Your task to perform on an android device: toggle location history Image 0: 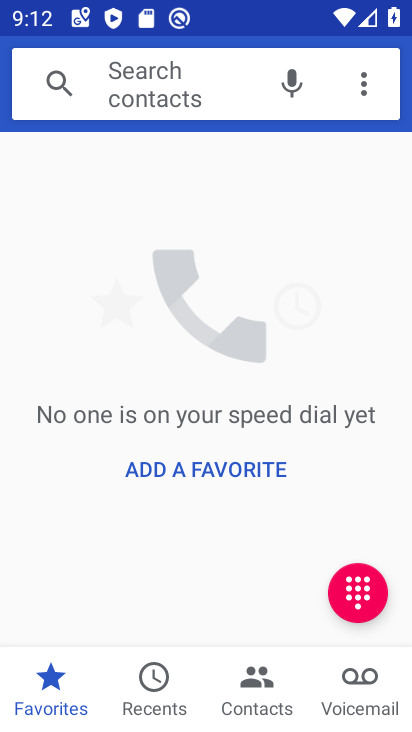
Step 0: press back button
Your task to perform on an android device: toggle location history Image 1: 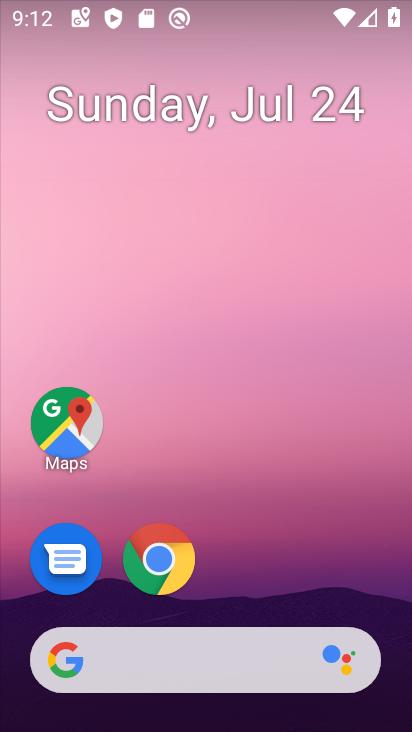
Step 1: drag from (265, 632) to (323, 85)
Your task to perform on an android device: toggle location history Image 2: 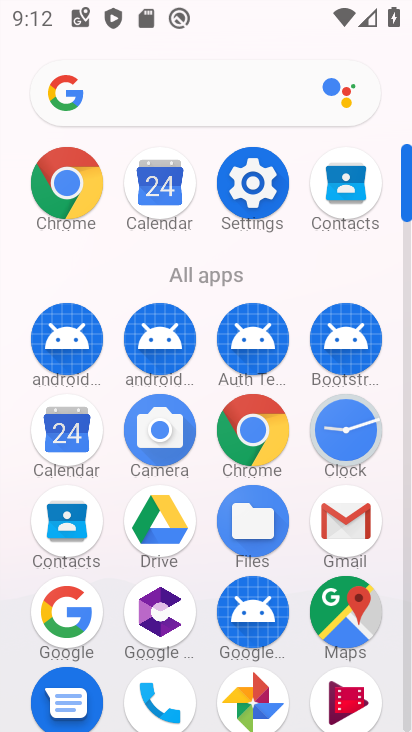
Step 2: click (271, 191)
Your task to perform on an android device: toggle location history Image 3: 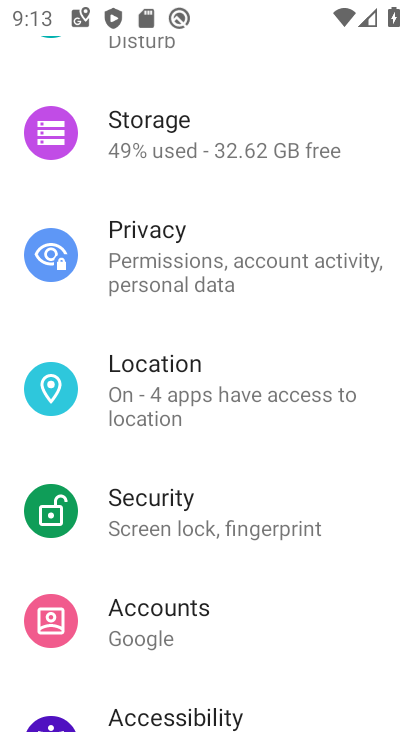
Step 3: click (162, 357)
Your task to perform on an android device: toggle location history Image 4: 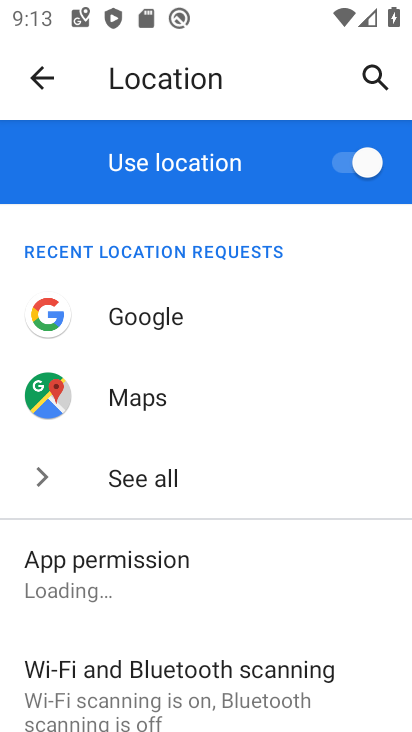
Step 4: drag from (121, 652) to (259, 109)
Your task to perform on an android device: toggle location history Image 5: 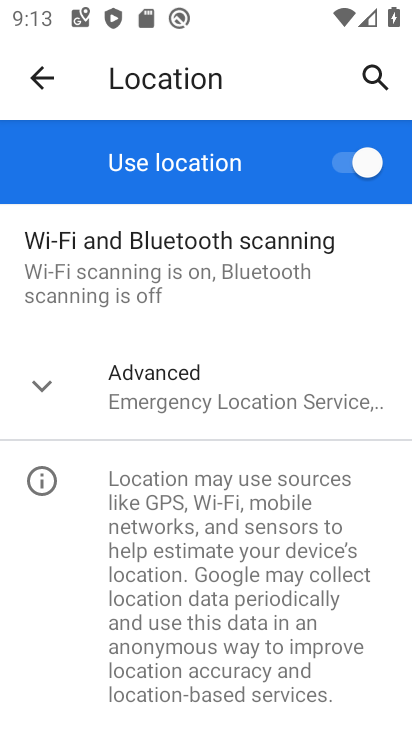
Step 5: click (145, 386)
Your task to perform on an android device: toggle location history Image 6: 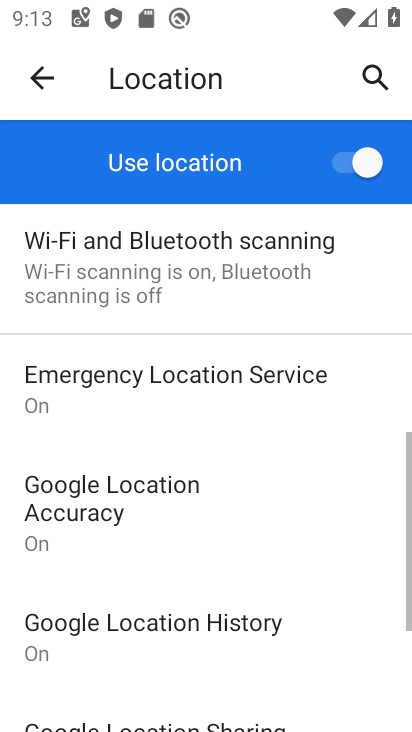
Step 6: click (153, 634)
Your task to perform on an android device: toggle location history Image 7: 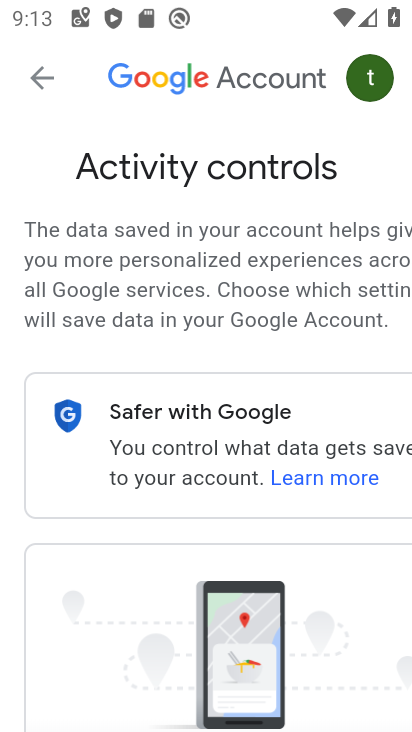
Step 7: drag from (235, 669) to (293, 103)
Your task to perform on an android device: toggle location history Image 8: 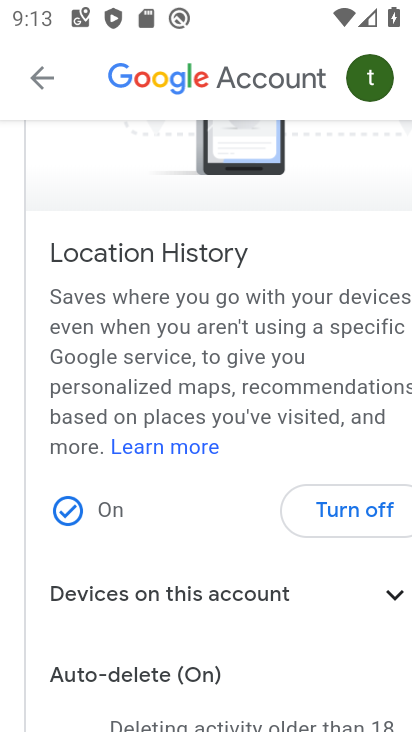
Step 8: click (370, 516)
Your task to perform on an android device: toggle location history Image 9: 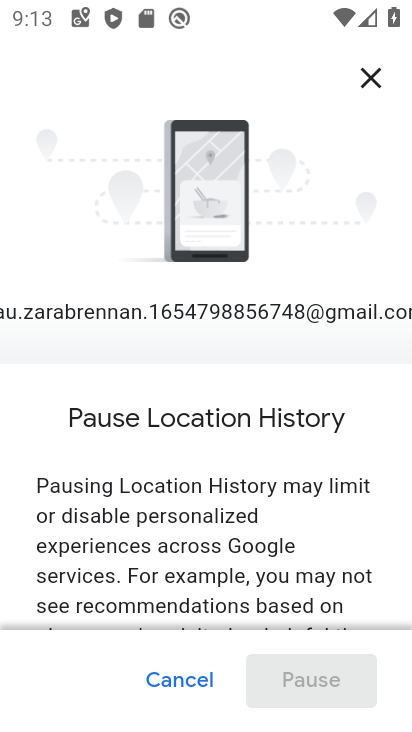
Step 9: drag from (219, 479) to (281, 5)
Your task to perform on an android device: toggle location history Image 10: 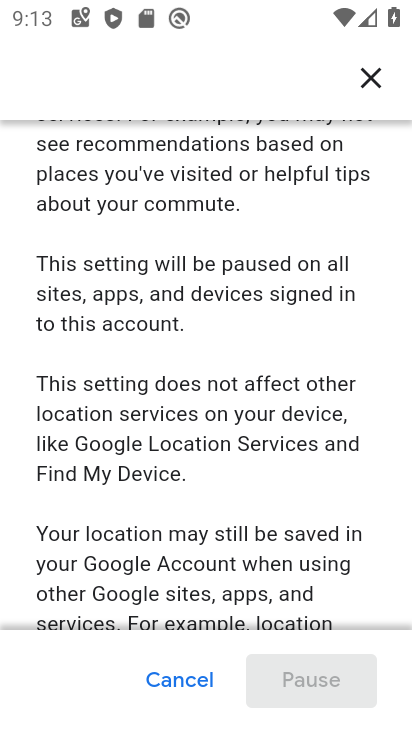
Step 10: drag from (226, 572) to (304, 0)
Your task to perform on an android device: toggle location history Image 11: 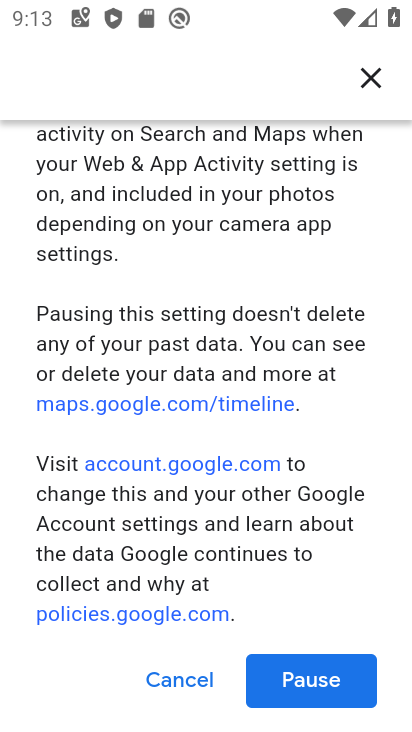
Step 11: click (273, 672)
Your task to perform on an android device: toggle location history Image 12: 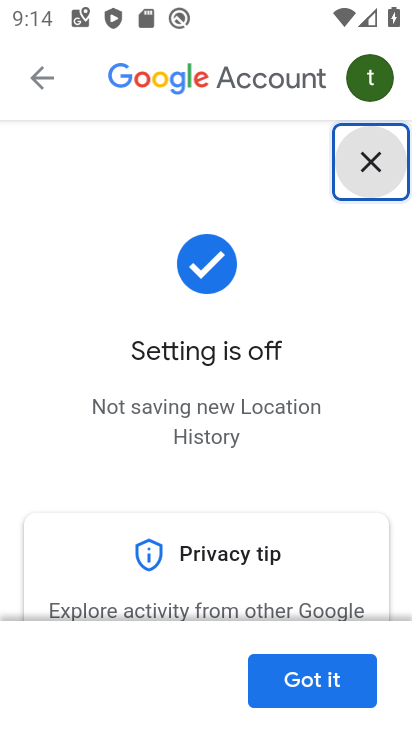
Step 12: click (289, 689)
Your task to perform on an android device: toggle location history Image 13: 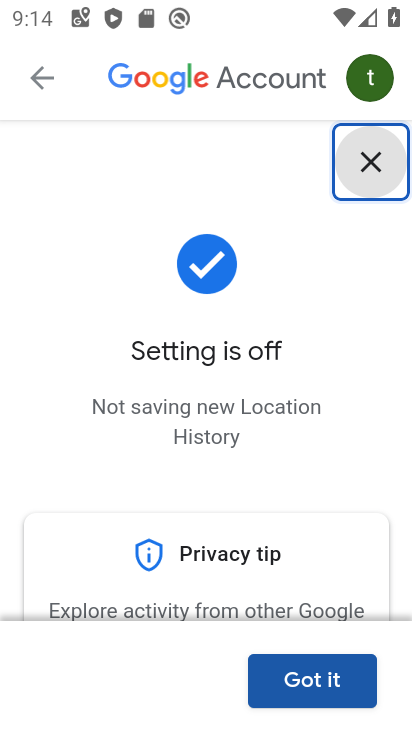
Step 13: task complete